Your task to perform on an android device: change keyboard looks Image 0: 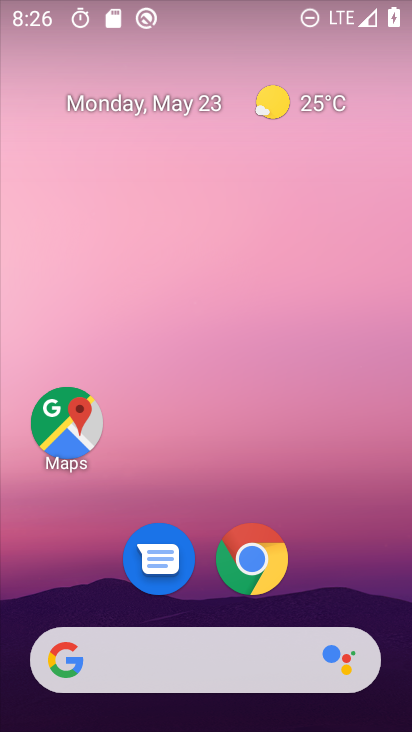
Step 0: drag from (389, 621) to (317, 6)
Your task to perform on an android device: change keyboard looks Image 1: 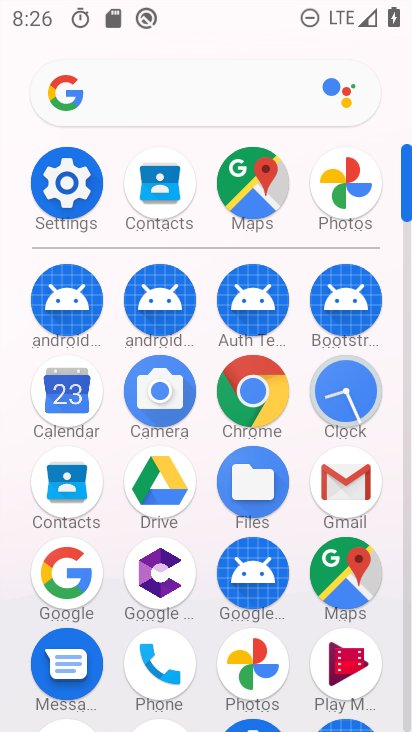
Step 1: click (63, 205)
Your task to perform on an android device: change keyboard looks Image 2: 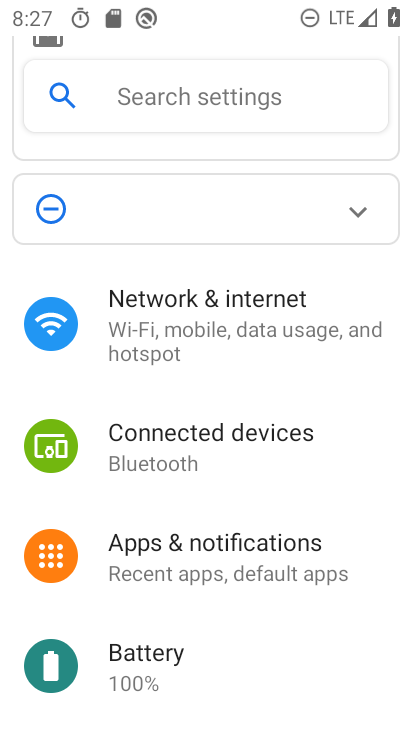
Step 2: drag from (234, 641) to (177, 22)
Your task to perform on an android device: change keyboard looks Image 3: 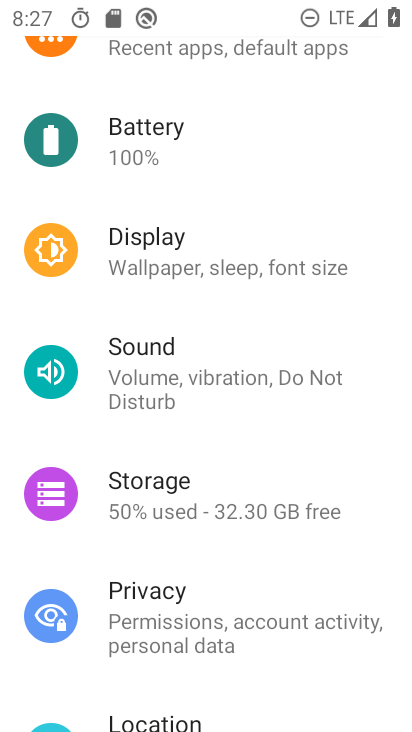
Step 3: drag from (154, 669) to (174, 41)
Your task to perform on an android device: change keyboard looks Image 4: 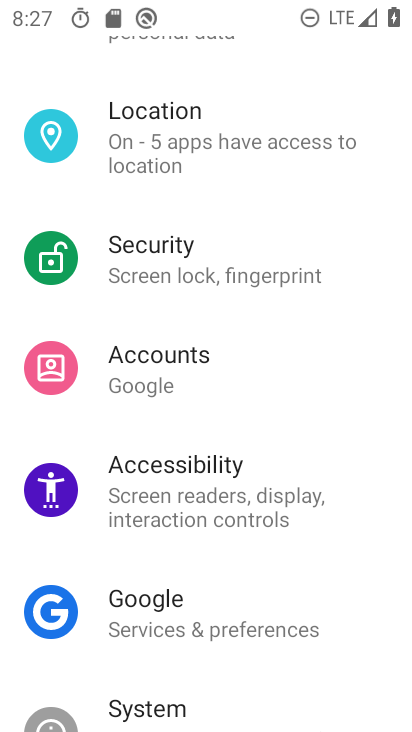
Step 4: drag from (200, 650) to (152, 83)
Your task to perform on an android device: change keyboard looks Image 5: 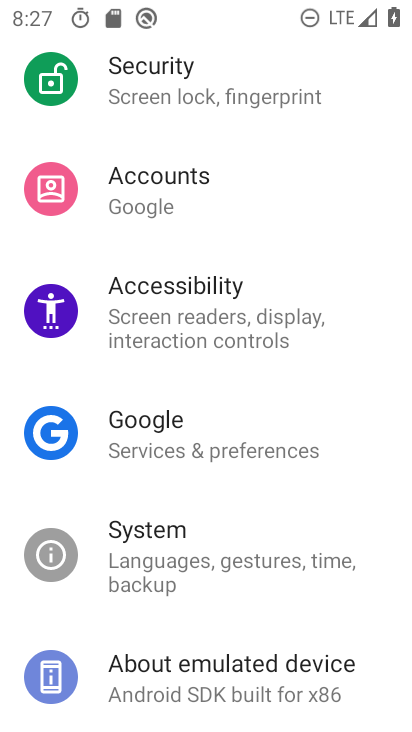
Step 5: click (167, 555)
Your task to perform on an android device: change keyboard looks Image 6: 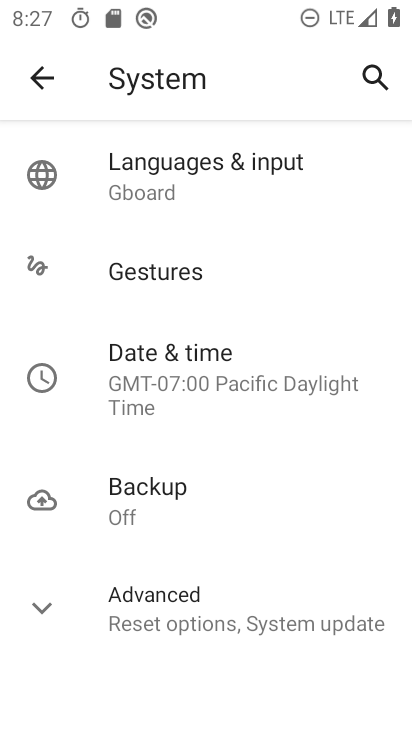
Step 6: click (180, 172)
Your task to perform on an android device: change keyboard looks Image 7: 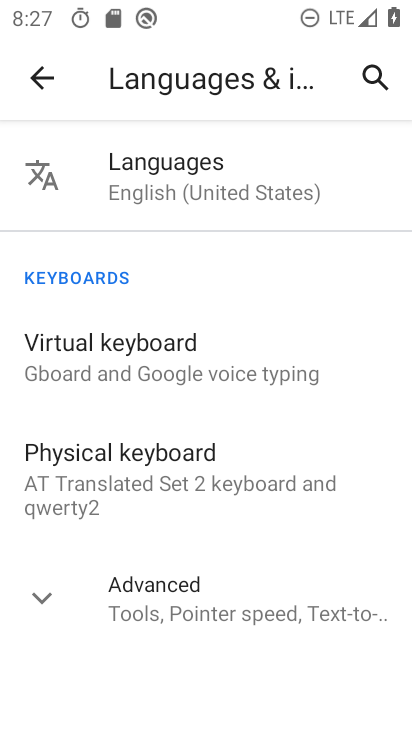
Step 7: click (173, 384)
Your task to perform on an android device: change keyboard looks Image 8: 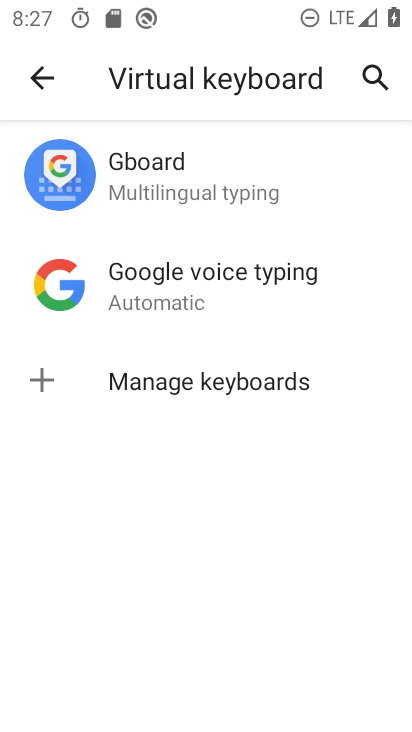
Step 8: click (210, 153)
Your task to perform on an android device: change keyboard looks Image 9: 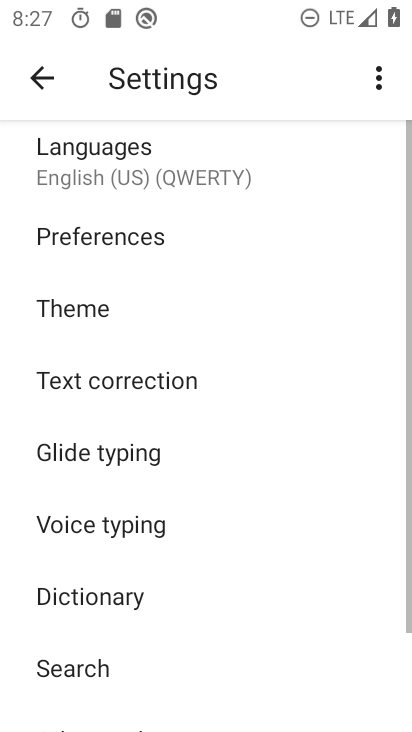
Step 9: click (155, 324)
Your task to perform on an android device: change keyboard looks Image 10: 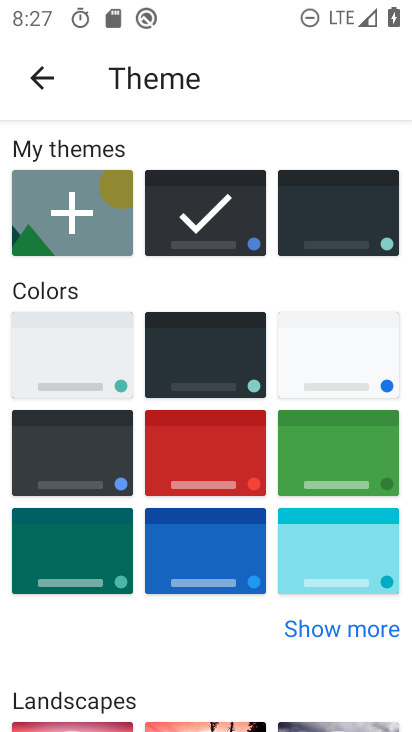
Step 10: click (329, 374)
Your task to perform on an android device: change keyboard looks Image 11: 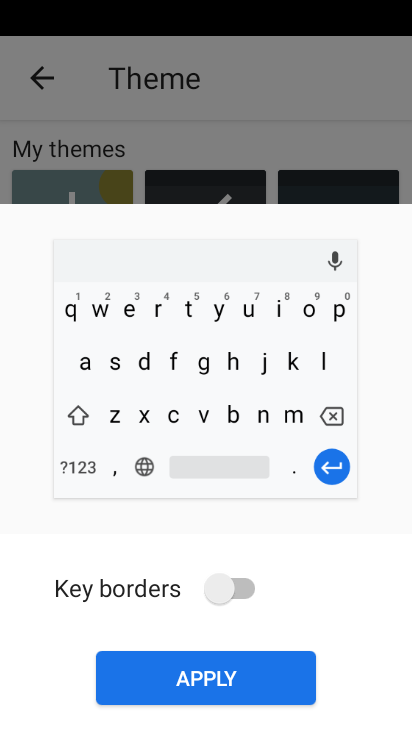
Step 11: click (263, 678)
Your task to perform on an android device: change keyboard looks Image 12: 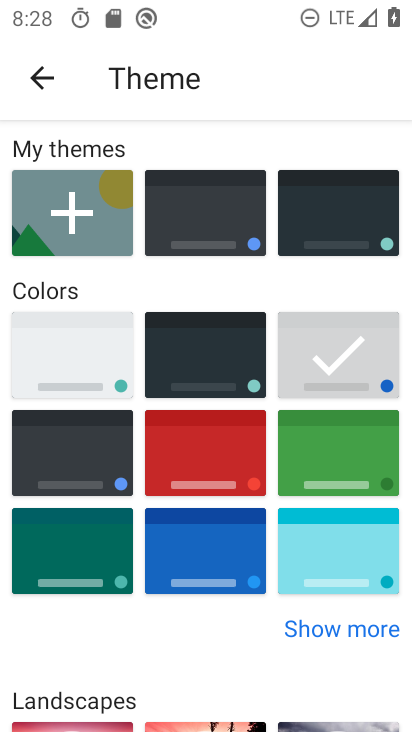
Step 12: task complete